Your task to perform on an android device: Open calendar and show me the third week of next month Image 0: 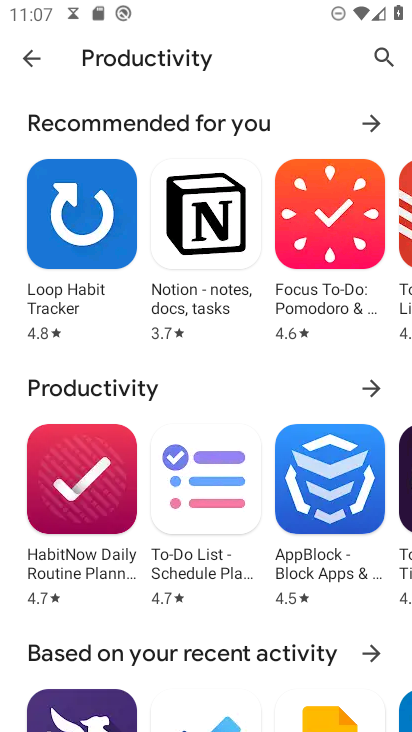
Step 0: press home button
Your task to perform on an android device: Open calendar and show me the third week of next month Image 1: 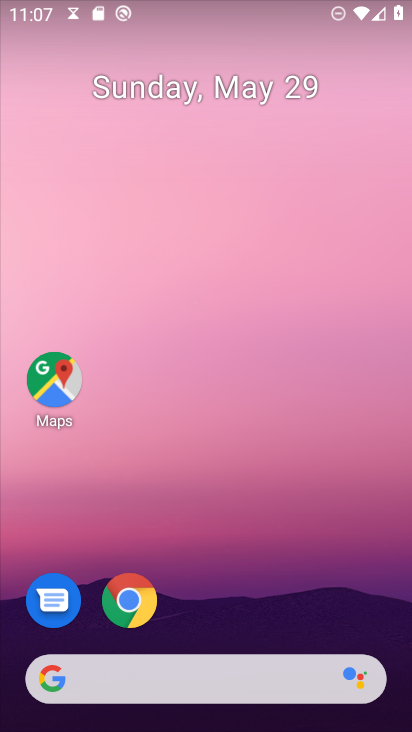
Step 1: drag from (215, 722) to (213, 164)
Your task to perform on an android device: Open calendar and show me the third week of next month Image 2: 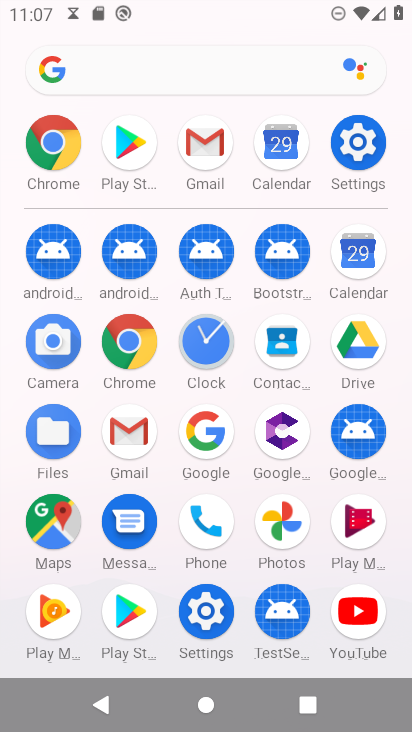
Step 2: click (362, 259)
Your task to perform on an android device: Open calendar and show me the third week of next month Image 3: 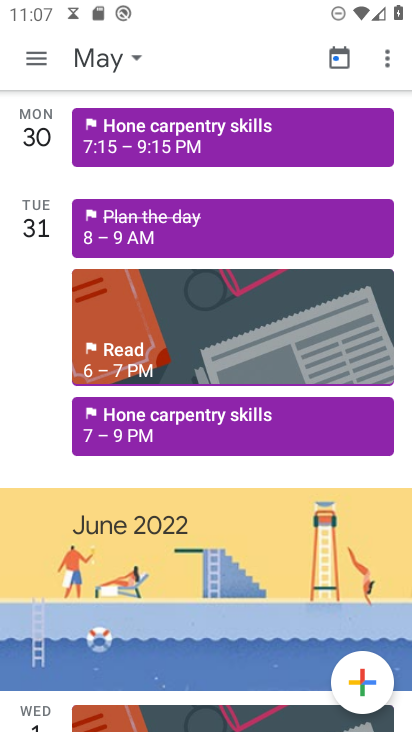
Step 3: click (122, 52)
Your task to perform on an android device: Open calendar and show me the third week of next month Image 4: 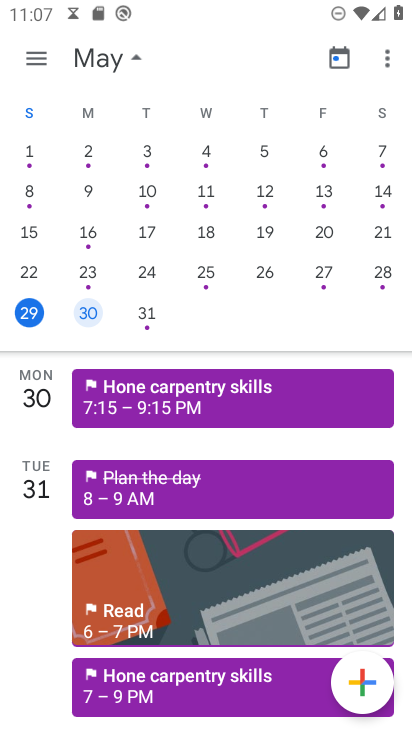
Step 4: drag from (379, 229) to (0, 201)
Your task to perform on an android device: Open calendar and show me the third week of next month Image 5: 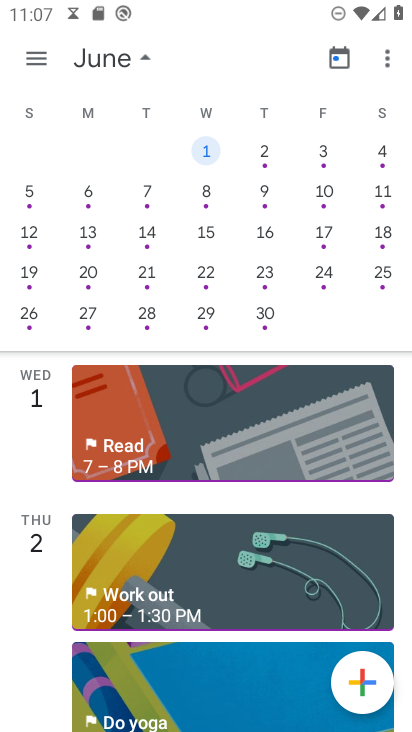
Step 5: click (88, 266)
Your task to perform on an android device: Open calendar and show me the third week of next month Image 6: 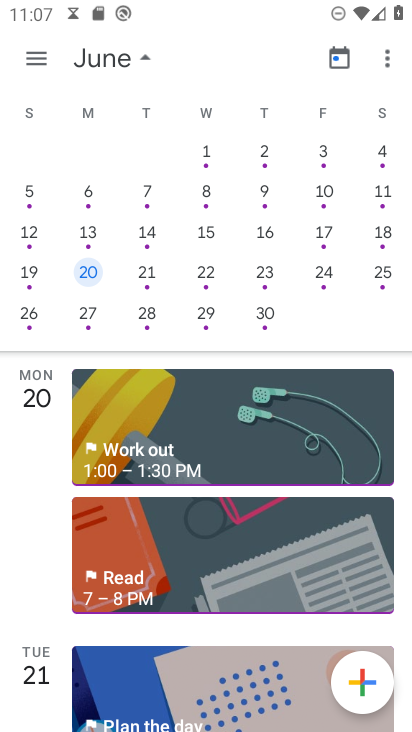
Step 6: click (42, 55)
Your task to perform on an android device: Open calendar and show me the third week of next month Image 7: 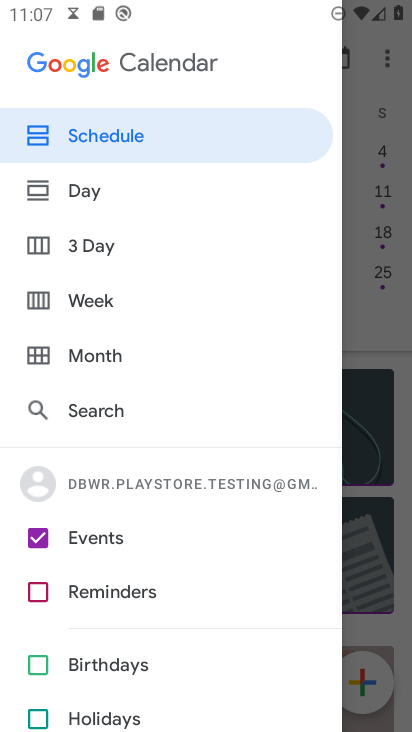
Step 7: click (93, 302)
Your task to perform on an android device: Open calendar and show me the third week of next month Image 8: 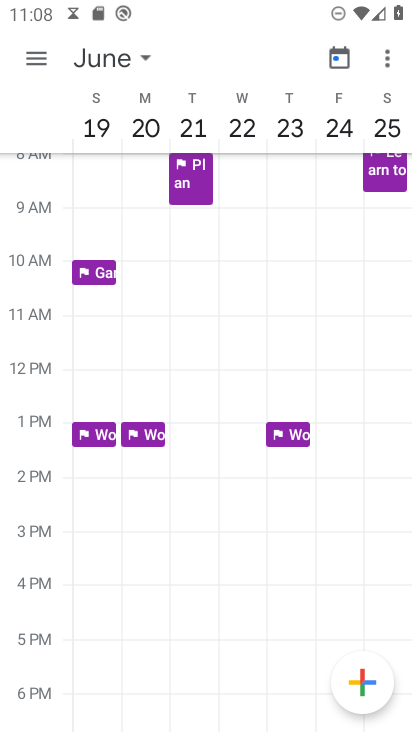
Step 8: task complete